Your task to perform on an android device: turn on the 12-hour format for clock Image 0: 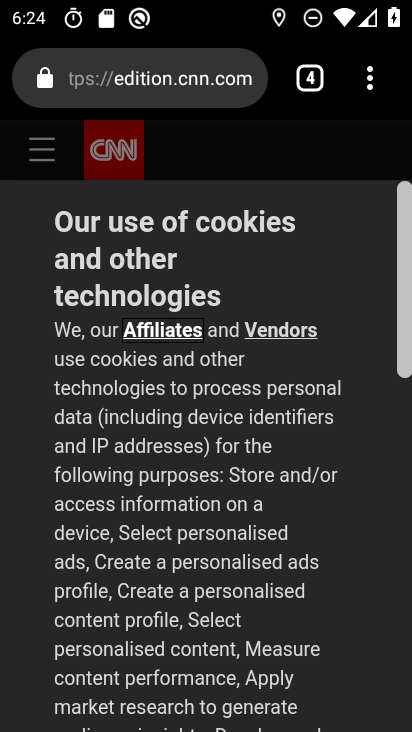
Step 0: press back button
Your task to perform on an android device: turn on the 12-hour format for clock Image 1: 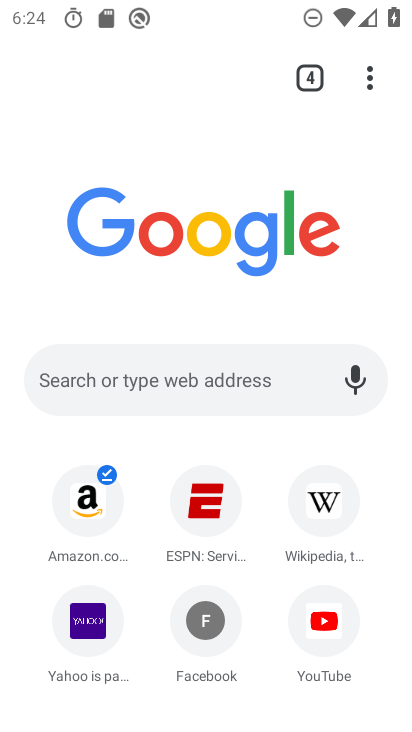
Step 1: press back button
Your task to perform on an android device: turn on the 12-hour format for clock Image 2: 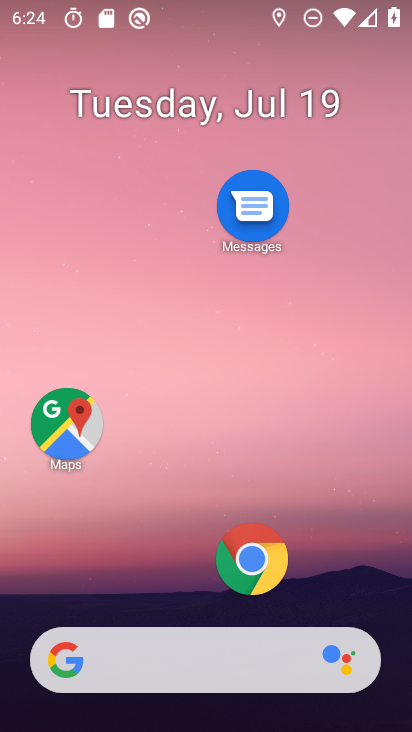
Step 2: drag from (153, 457) to (222, 0)
Your task to perform on an android device: turn on the 12-hour format for clock Image 3: 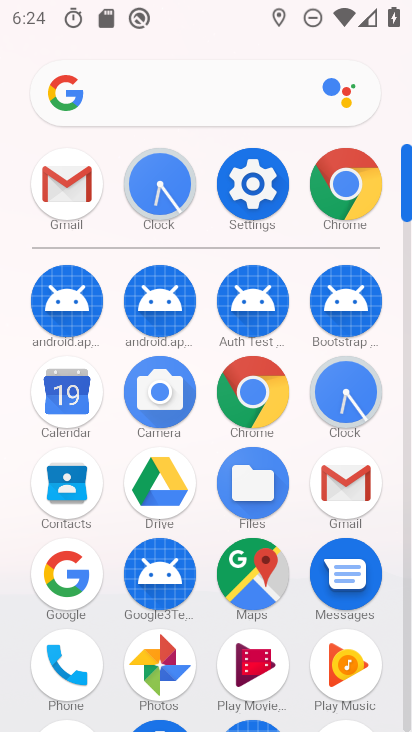
Step 3: click (154, 186)
Your task to perform on an android device: turn on the 12-hour format for clock Image 4: 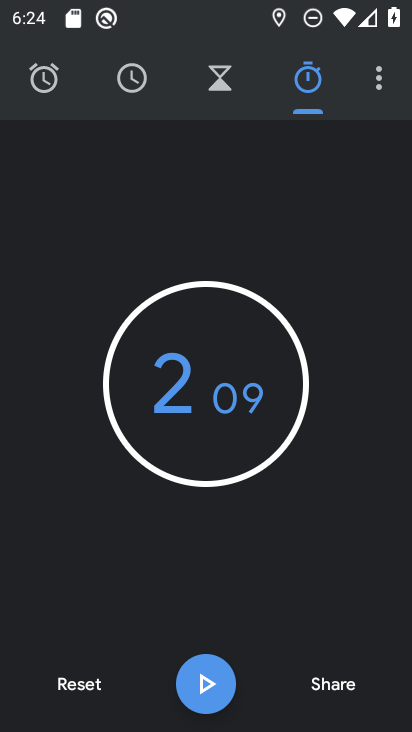
Step 4: click (372, 73)
Your task to perform on an android device: turn on the 12-hour format for clock Image 5: 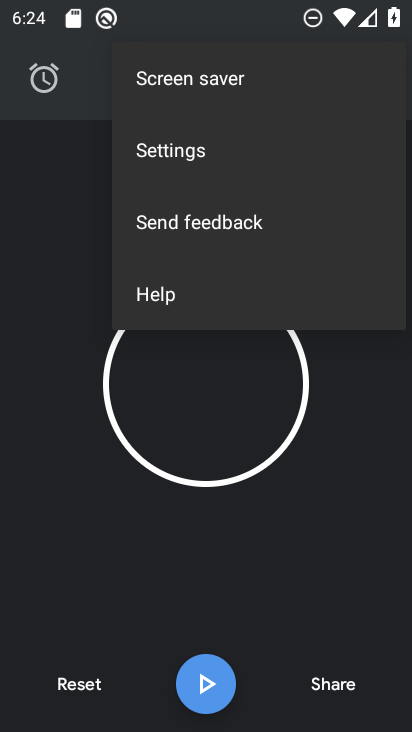
Step 5: click (184, 154)
Your task to perform on an android device: turn on the 12-hour format for clock Image 6: 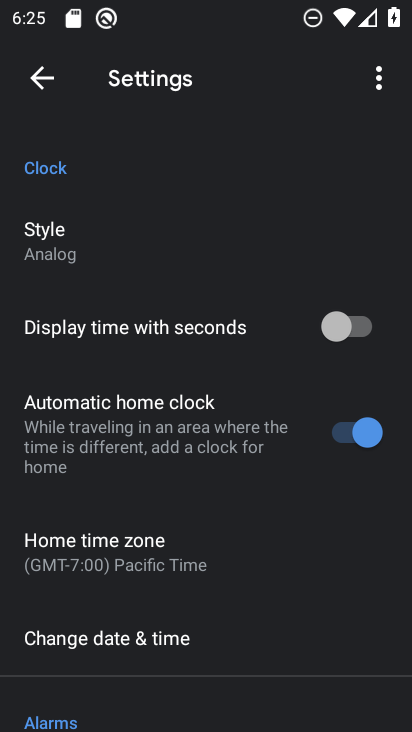
Step 6: click (133, 639)
Your task to perform on an android device: turn on the 12-hour format for clock Image 7: 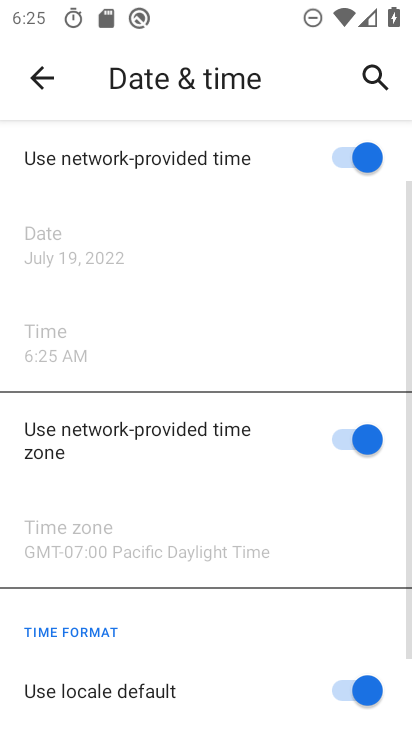
Step 7: task complete